Your task to perform on an android device: Open calendar and show me the first week of next month Image 0: 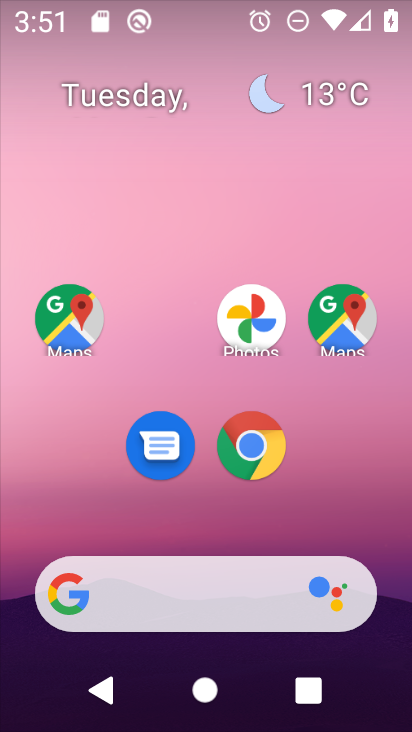
Step 0: drag from (381, 547) to (402, 222)
Your task to perform on an android device: Open calendar and show me the first week of next month Image 1: 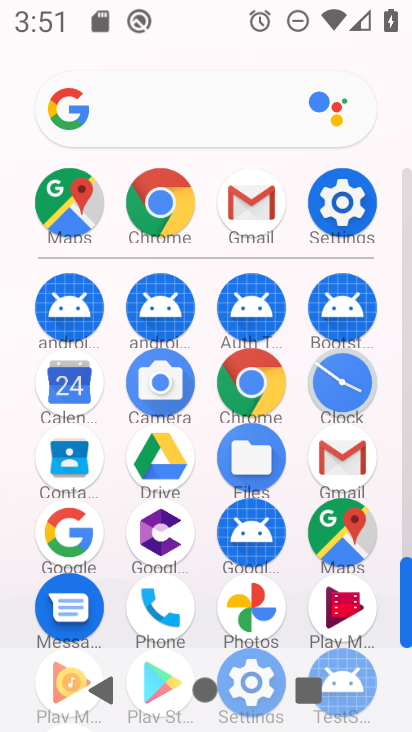
Step 1: click (72, 411)
Your task to perform on an android device: Open calendar and show me the first week of next month Image 2: 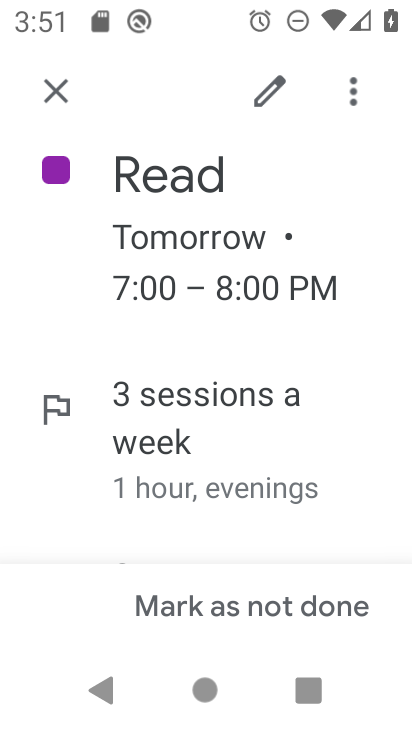
Step 2: click (50, 98)
Your task to perform on an android device: Open calendar and show me the first week of next month Image 3: 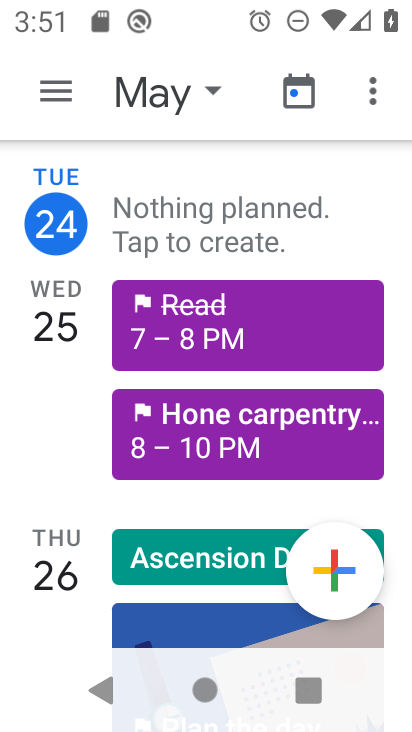
Step 3: click (215, 99)
Your task to perform on an android device: Open calendar and show me the first week of next month Image 4: 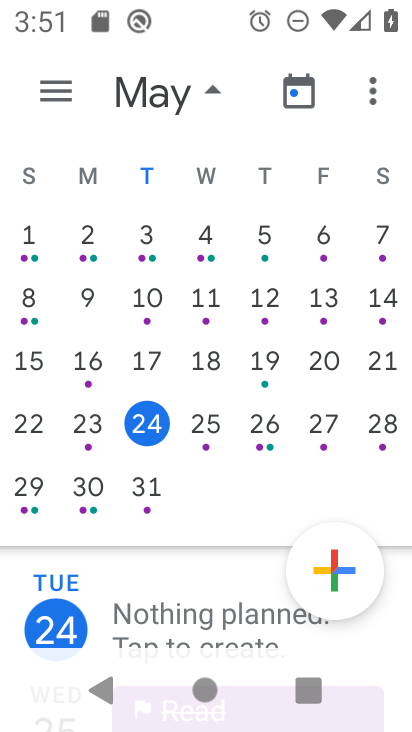
Step 4: drag from (402, 207) to (3, 200)
Your task to perform on an android device: Open calendar and show me the first week of next month Image 5: 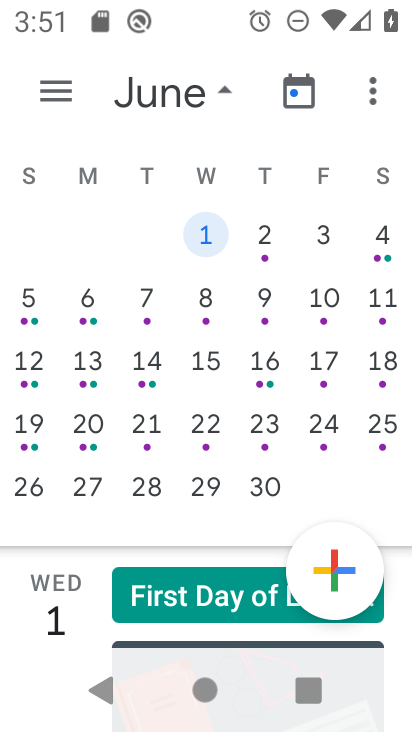
Step 5: click (207, 237)
Your task to perform on an android device: Open calendar and show me the first week of next month Image 6: 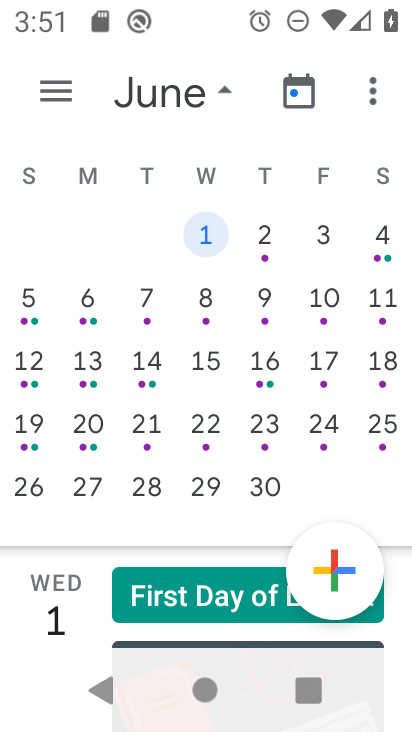
Step 6: task complete